Your task to perform on an android device: Clear the cart on target.com. Add "razer nari" to the cart on target.com, then select checkout. Image 0: 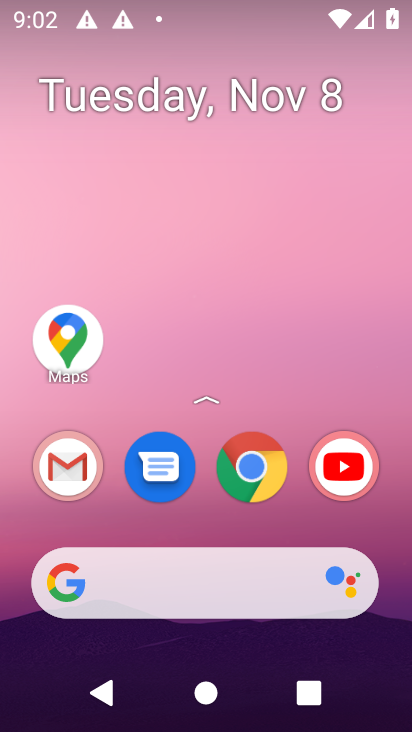
Step 0: click (218, 561)
Your task to perform on an android device: Clear the cart on target.com. Add "razer nari" to the cart on target.com, then select checkout. Image 1: 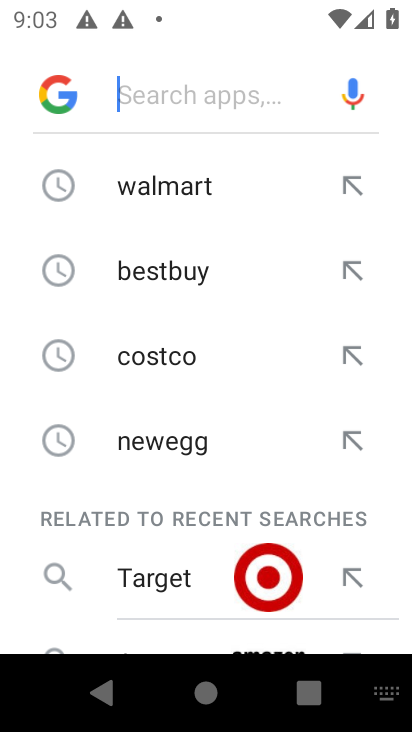
Step 1: type "target"
Your task to perform on an android device: Clear the cart on target.com. Add "razer nari" to the cart on target.com, then select checkout. Image 2: 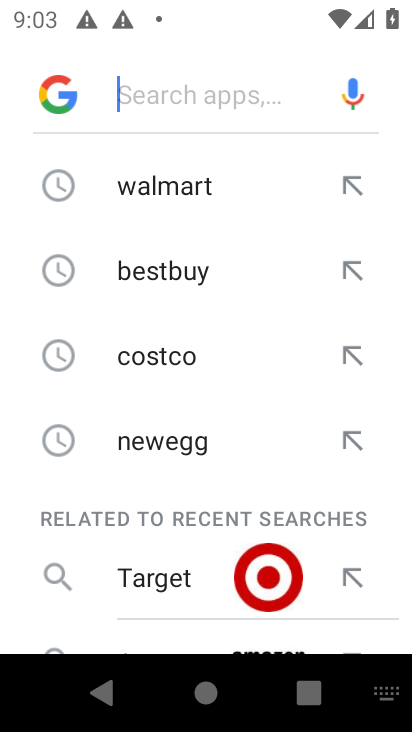
Step 2: click (175, 583)
Your task to perform on an android device: Clear the cart on target.com. Add "razer nari" to the cart on target.com, then select checkout. Image 3: 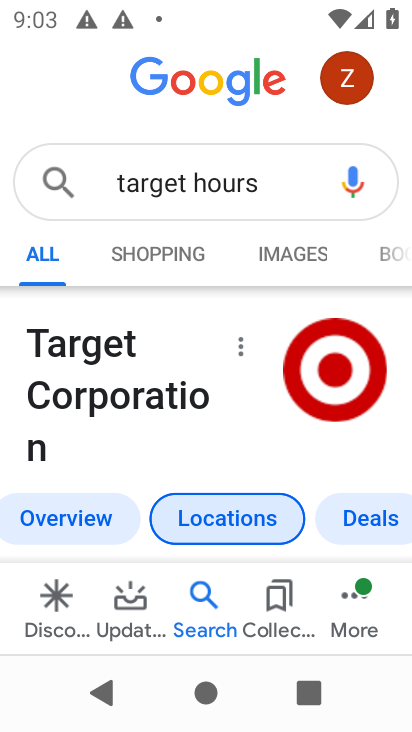
Step 3: task complete